Your task to perform on an android device: allow notifications from all sites in the chrome app Image 0: 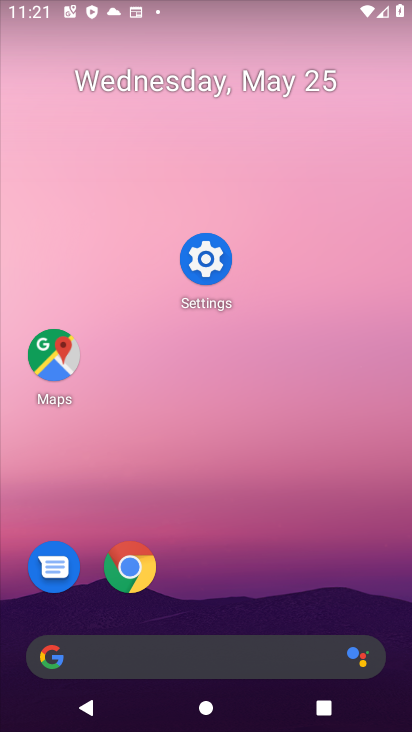
Step 0: drag from (270, 597) to (270, 386)
Your task to perform on an android device: allow notifications from all sites in the chrome app Image 1: 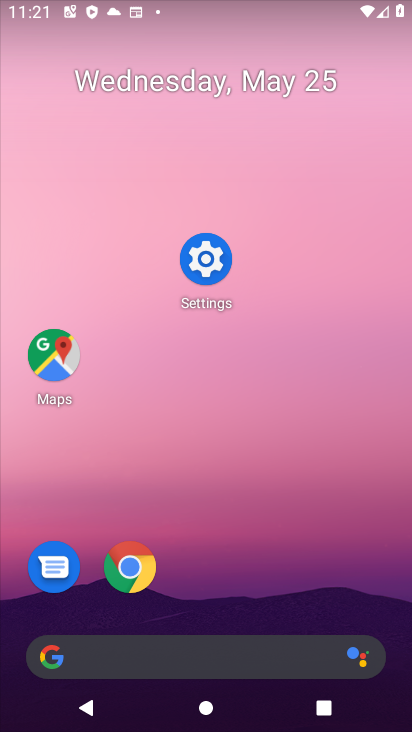
Step 1: click (141, 579)
Your task to perform on an android device: allow notifications from all sites in the chrome app Image 2: 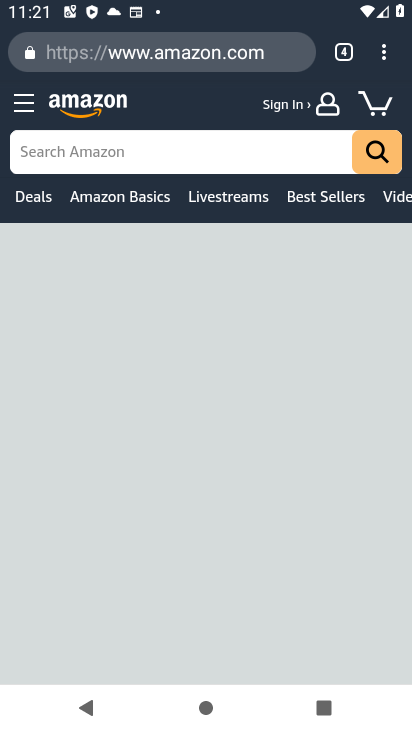
Step 2: click (378, 65)
Your task to perform on an android device: allow notifications from all sites in the chrome app Image 3: 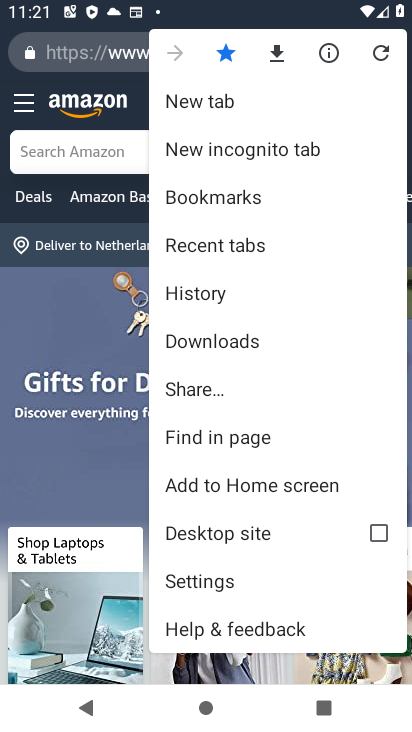
Step 3: click (232, 583)
Your task to perform on an android device: allow notifications from all sites in the chrome app Image 4: 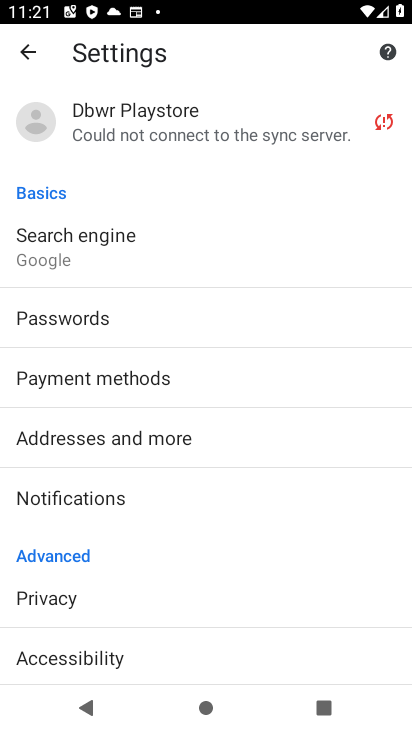
Step 4: click (156, 482)
Your task to perform on an android device: allow notifications from all sites in the chrome app Image 5: 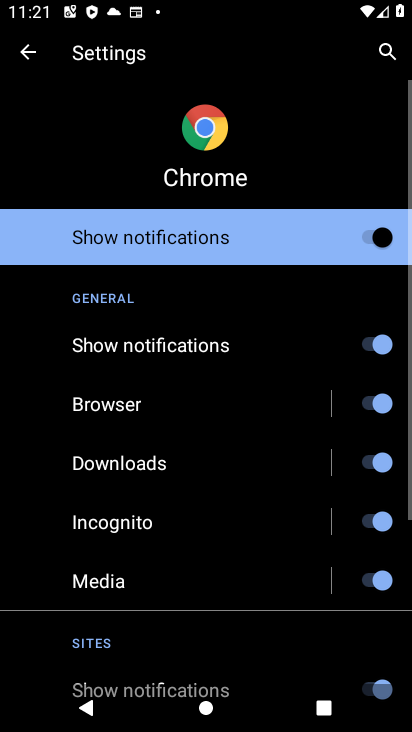
Step 5: task complete